Your task to perform on an android device: Go to Reddit.com Image 0: 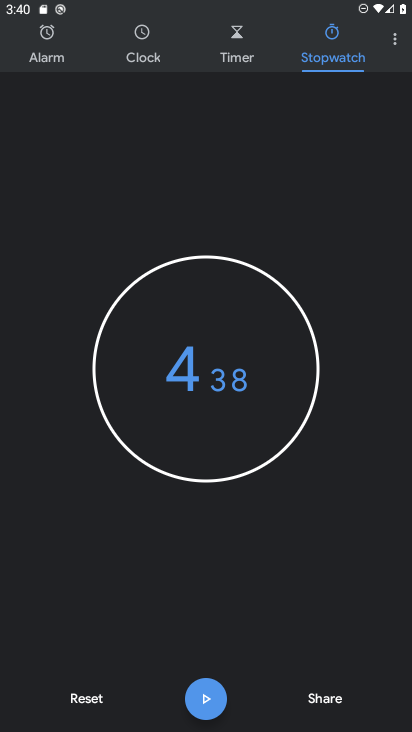
Step 0: press home button
Your task to perform on an android device: Go to Reddit.com Image 1: 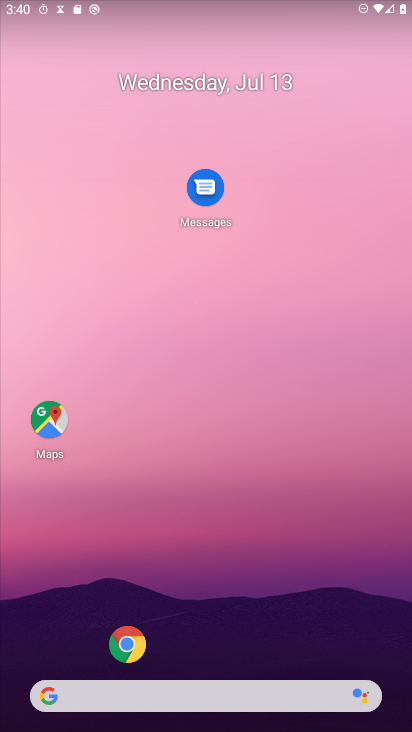
Step 1: click (70, 697)
Your task to perform on an android device: Go to Reddit.com Image 2: 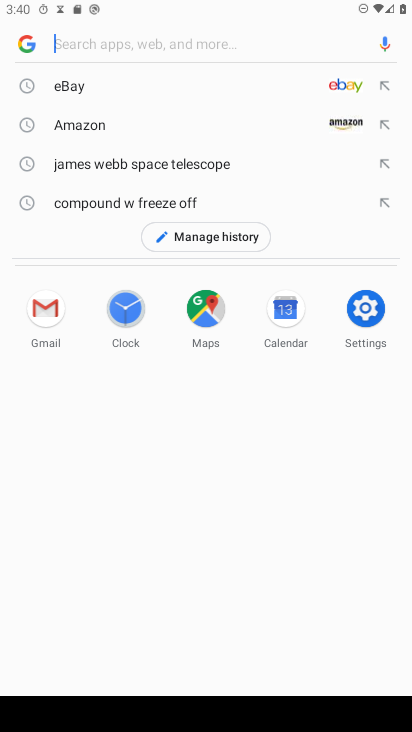
Step 2: click (80, 41)
Your task to perform on an android device: Go to Reddit.com Image 3: 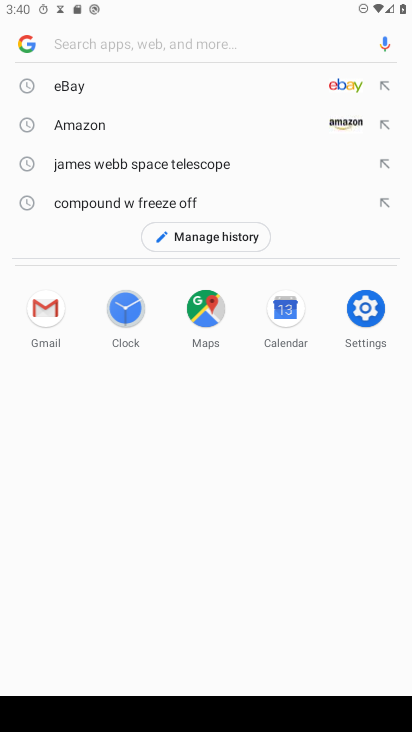
Step 3: type "Reddit.com"
Your task to perform on an android device: Go to Reddit.com Image 4: 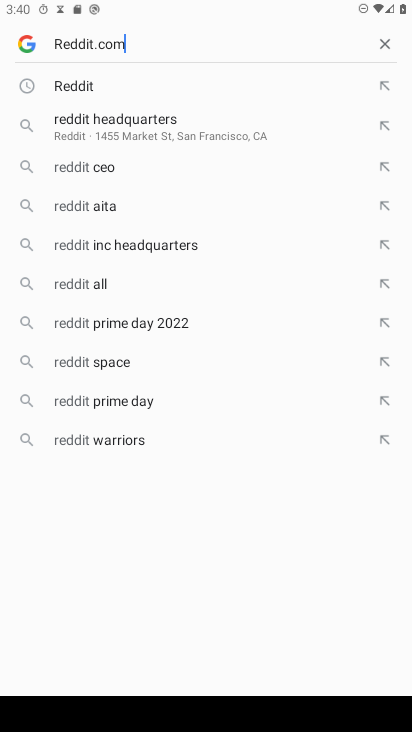
Step 4: type ""
Your task to perform on an android device: Go to Reddit.com Image 5: 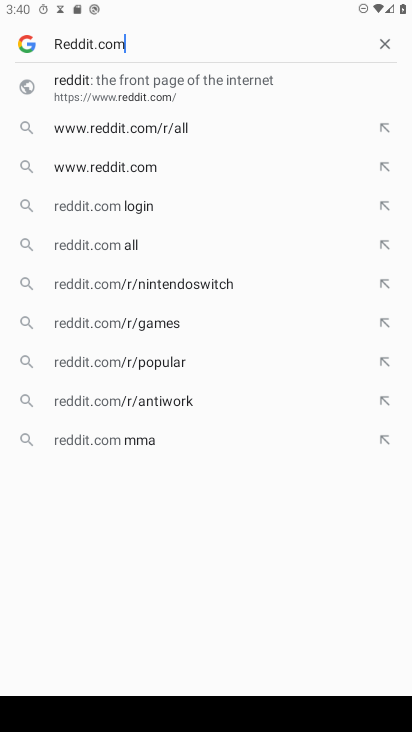
Step 5: type ""
Your task to perform on an android device: Go to Reddit.com Image 6: 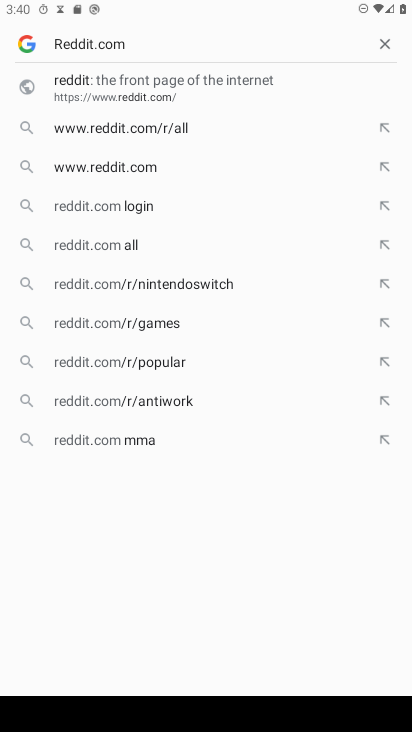
Step 6: type ""
Your task to perform on an android device: Go to Reddit.com Image 7: 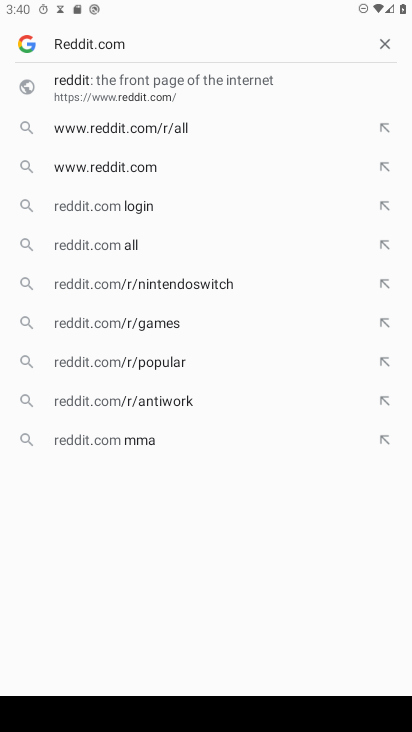
Step 7: task complete